Your task to perform on an android device: toggle notification dots Image 0: 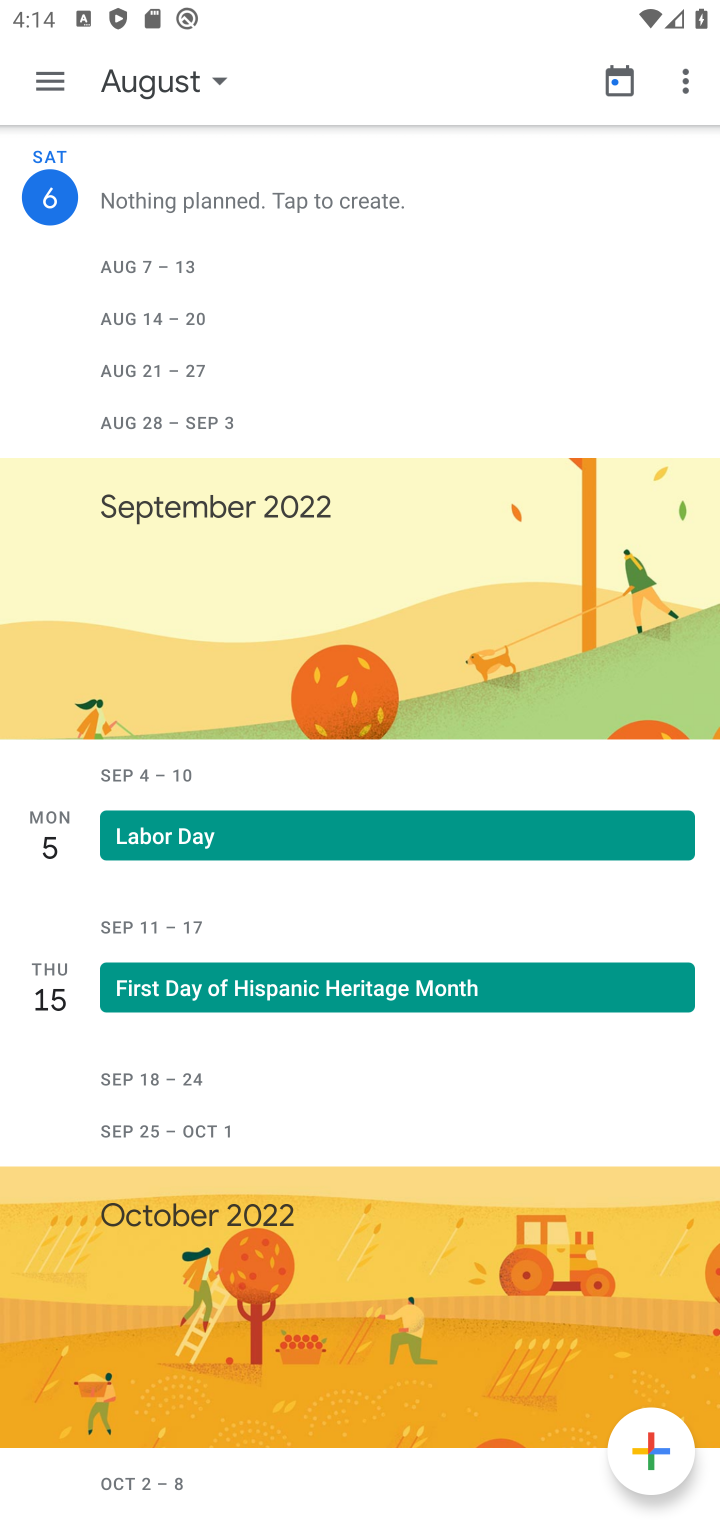
Step 0: press home button
Your task to perform on an android device: toggle notification dots Image 1: 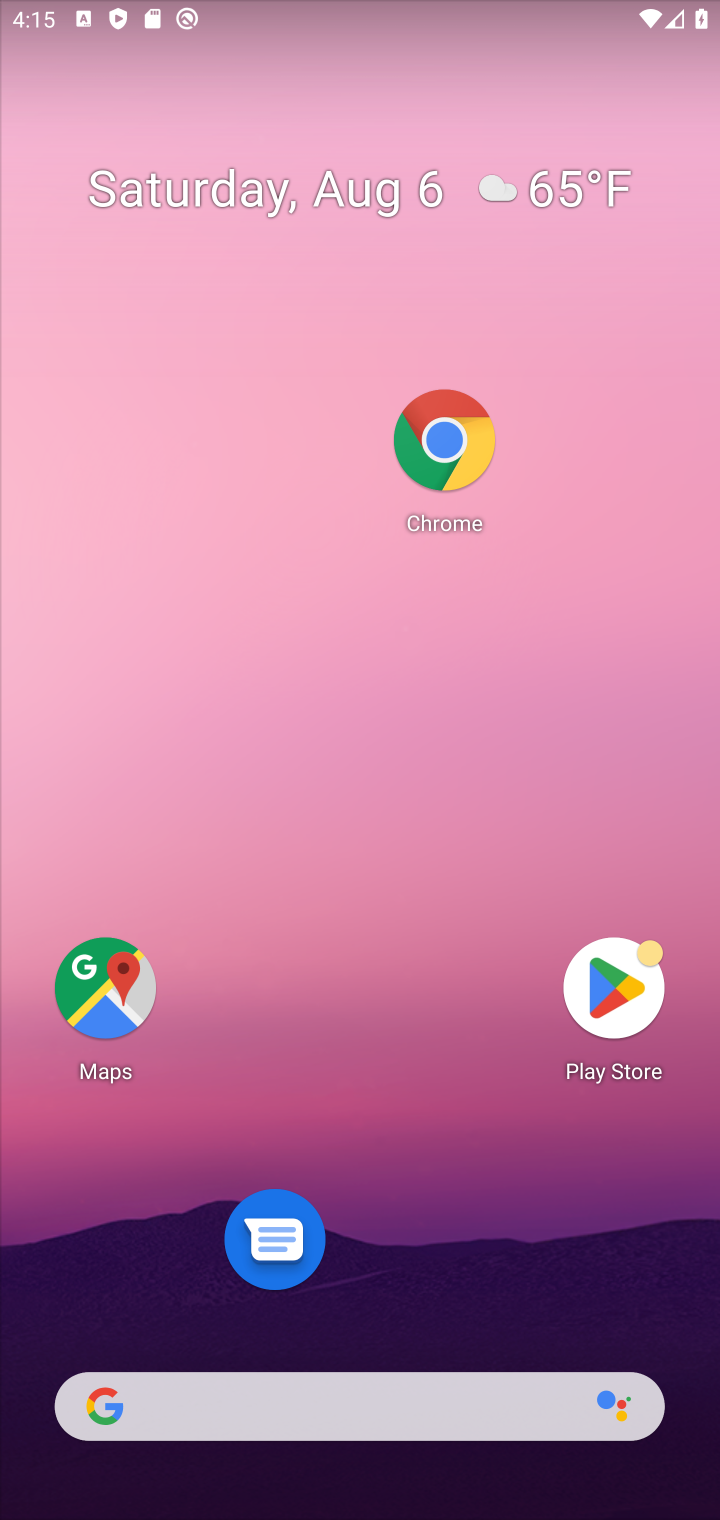
Step 1: drag from (515, 1392) to (527, 115)
Your task to perform on an android device: toggle notification dots Image 2: 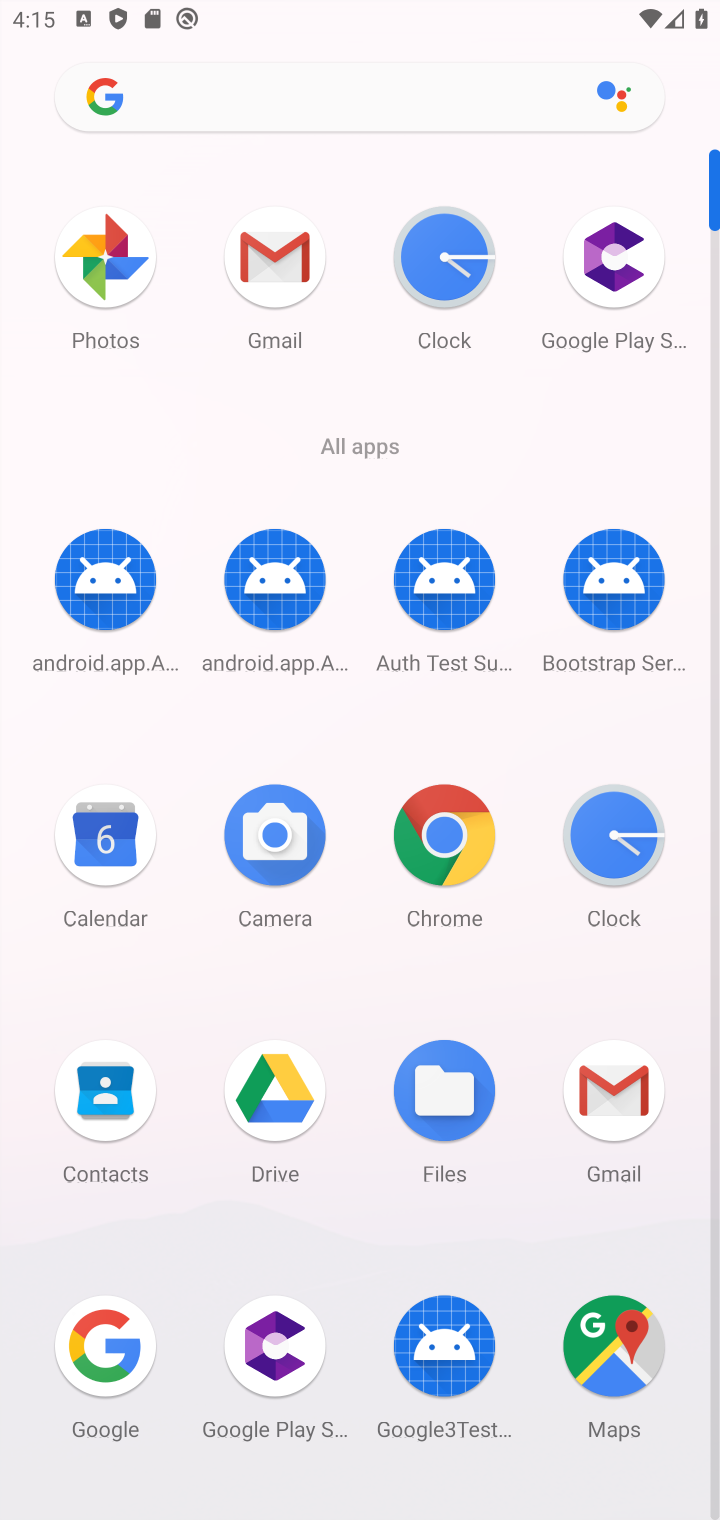
Step 2: drag from (519, 1308) to (538, 343)
Your task to perform on an android device: toggle notification dots Image 3: 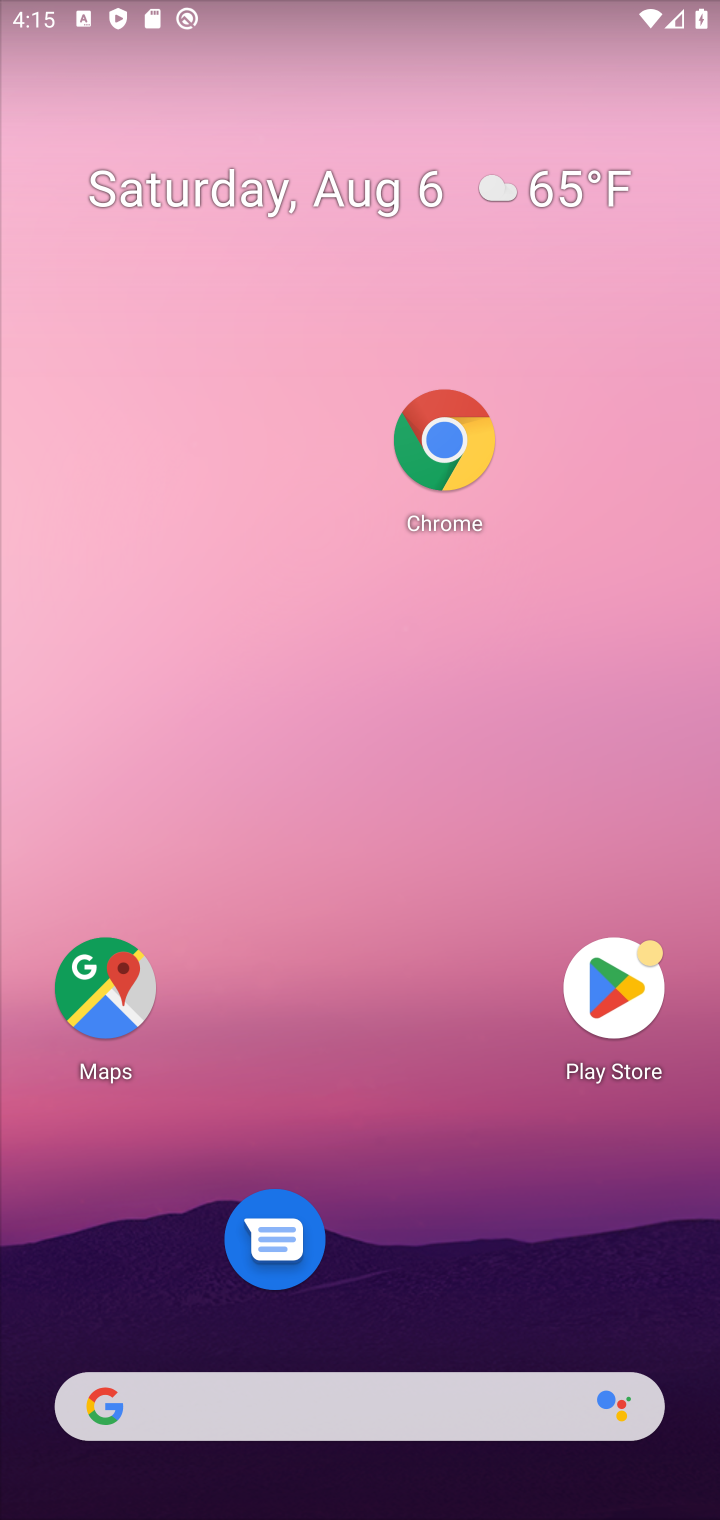
Step 3: drag from (529, 1249) to (667, 44)
Your task to perform on an android device: toggle notification dots Image 4: 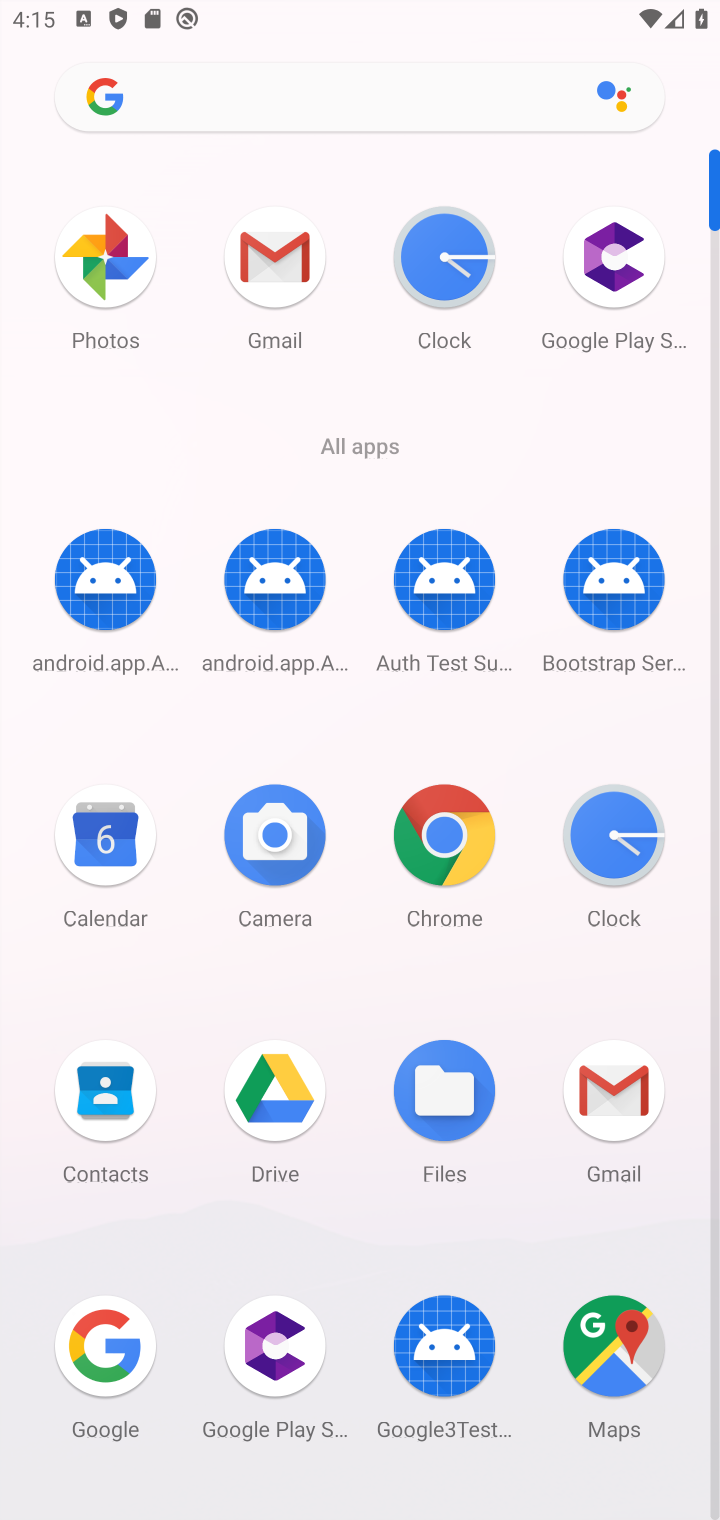
Step 4: drag from (530, 946) to (542, 327)
Your task to perform on an android device: toggle notification dots Image 5: 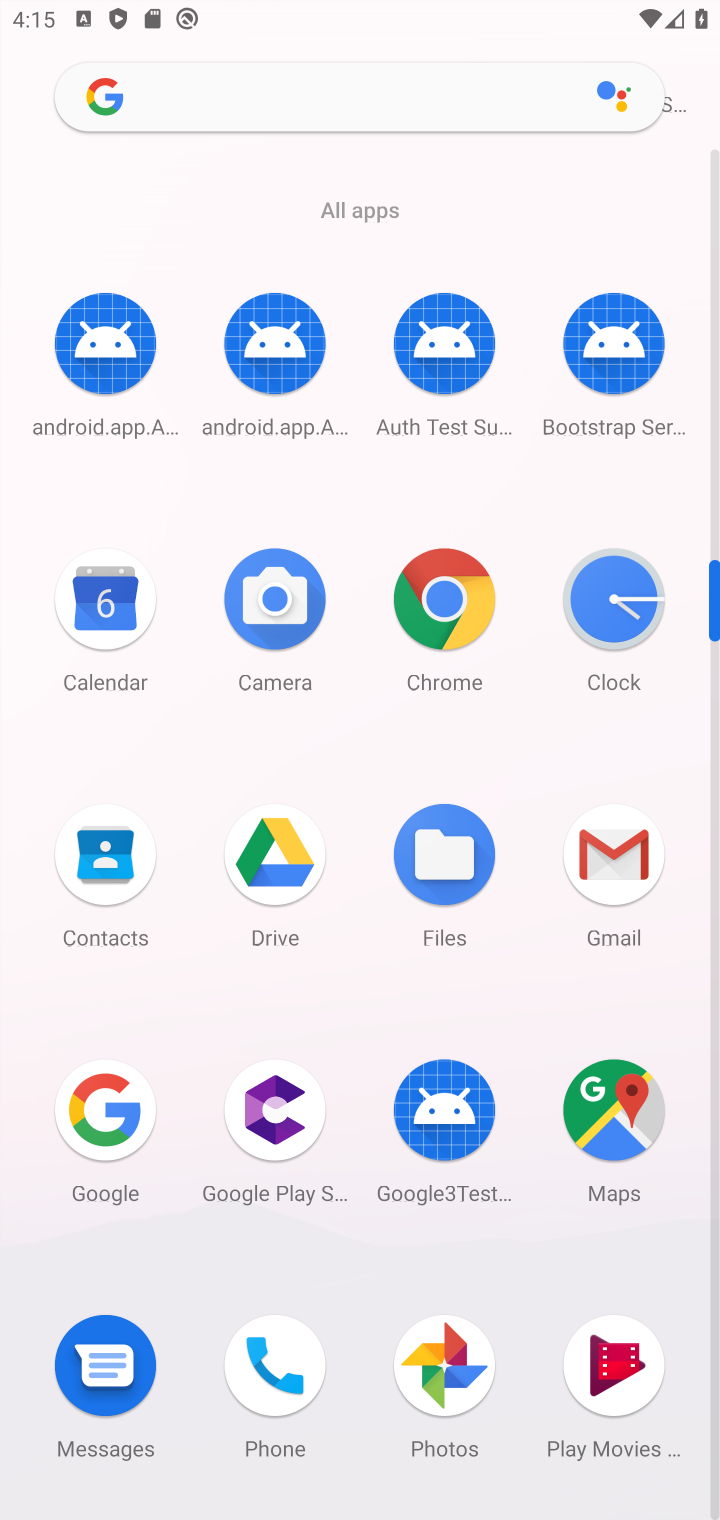
Step 5: drag from (523, 1241) to (493, 575)
Your task to perform on an android device: toggle notification dots Image 6: 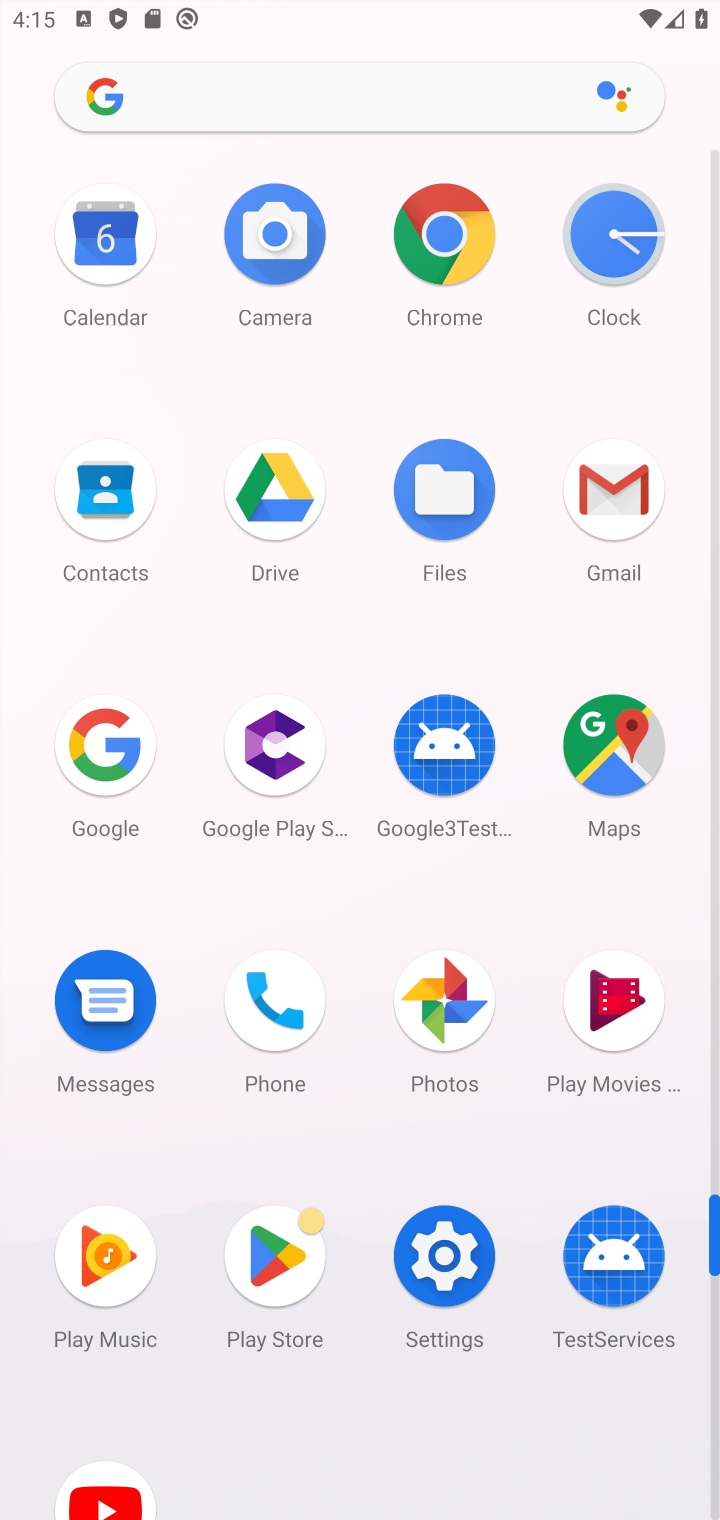
Step 6: click (452, 1254)
Your task to perform on an android device: toggle notification dots Image 7: 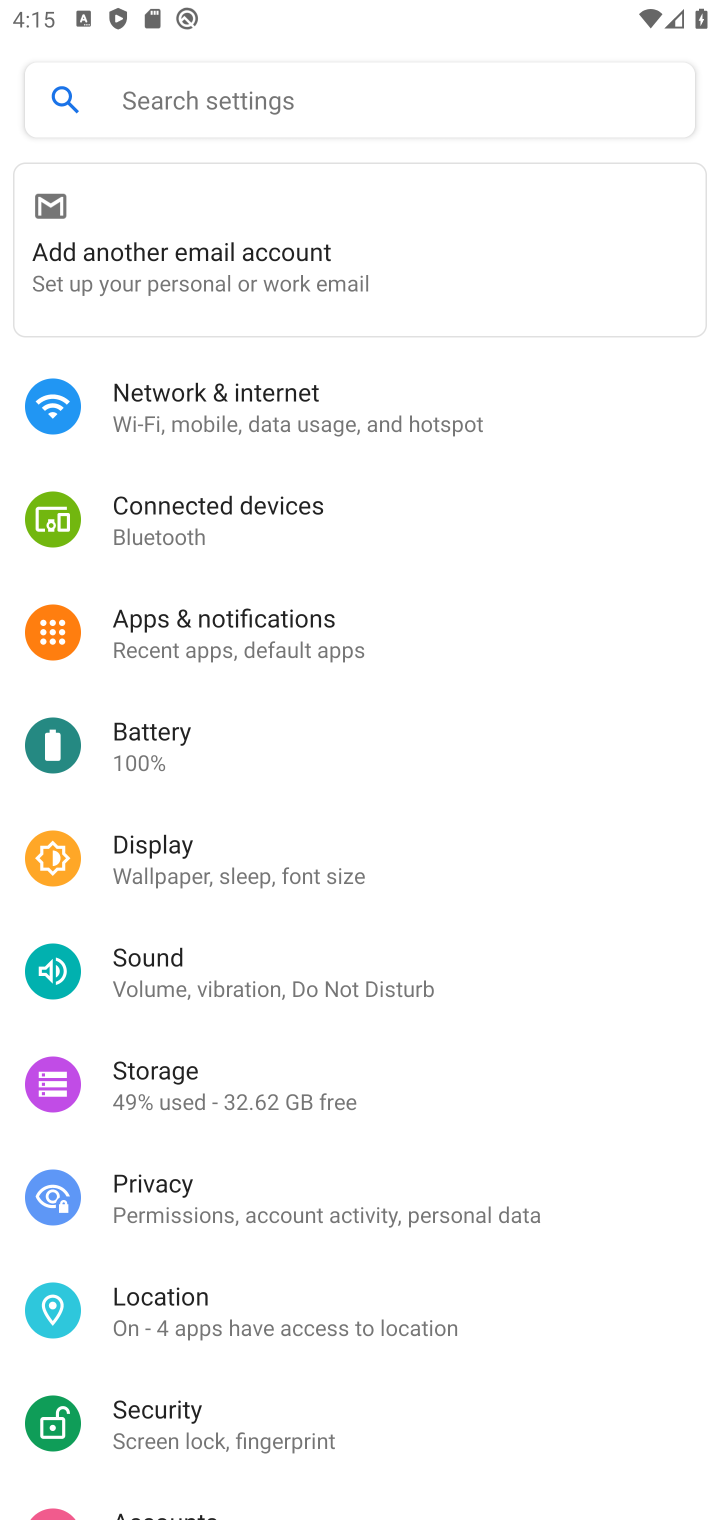
Step 7: click (287, 621)
Your task to perform on an android device: toggle notification dots Image 8: 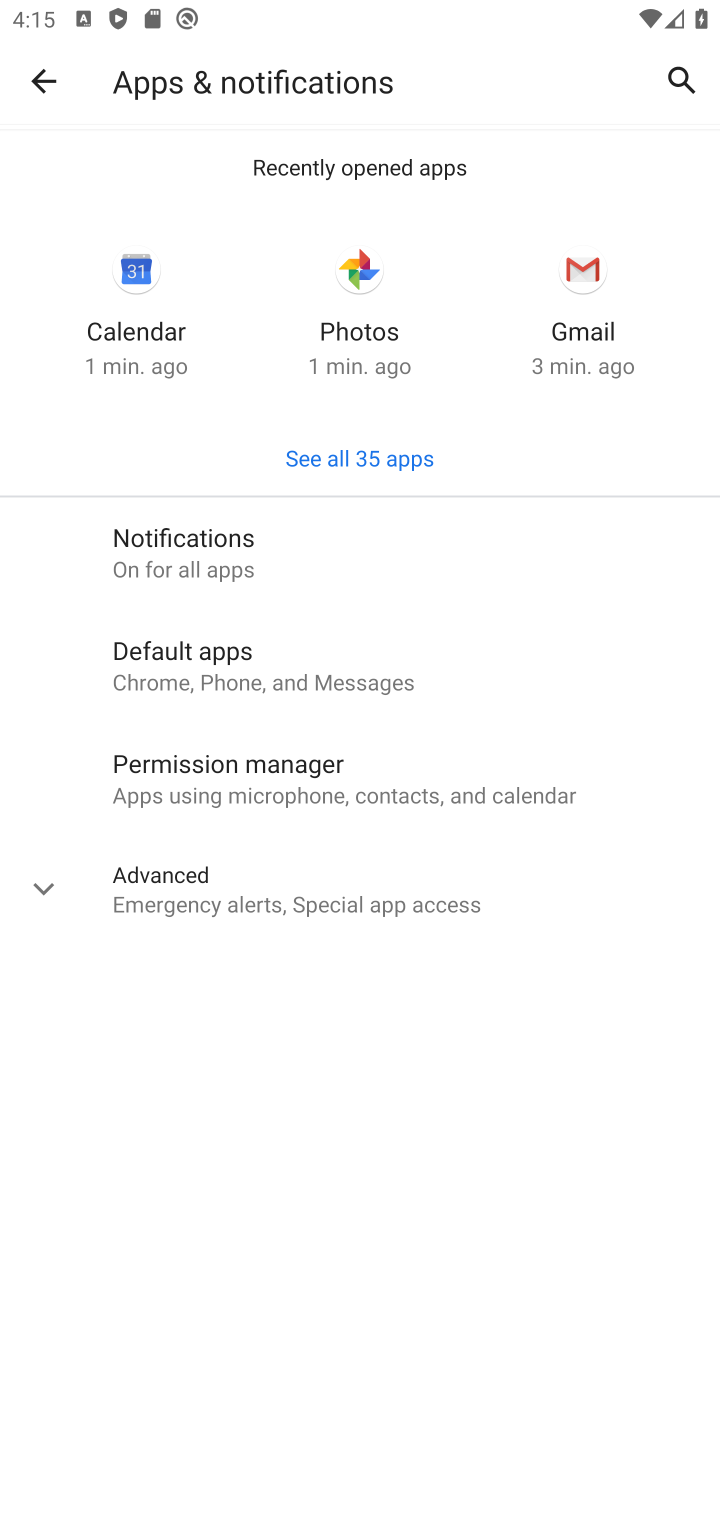
Step 8: click (239, 560)
Your task to perform on an android device: toggle notification dots Image 9: 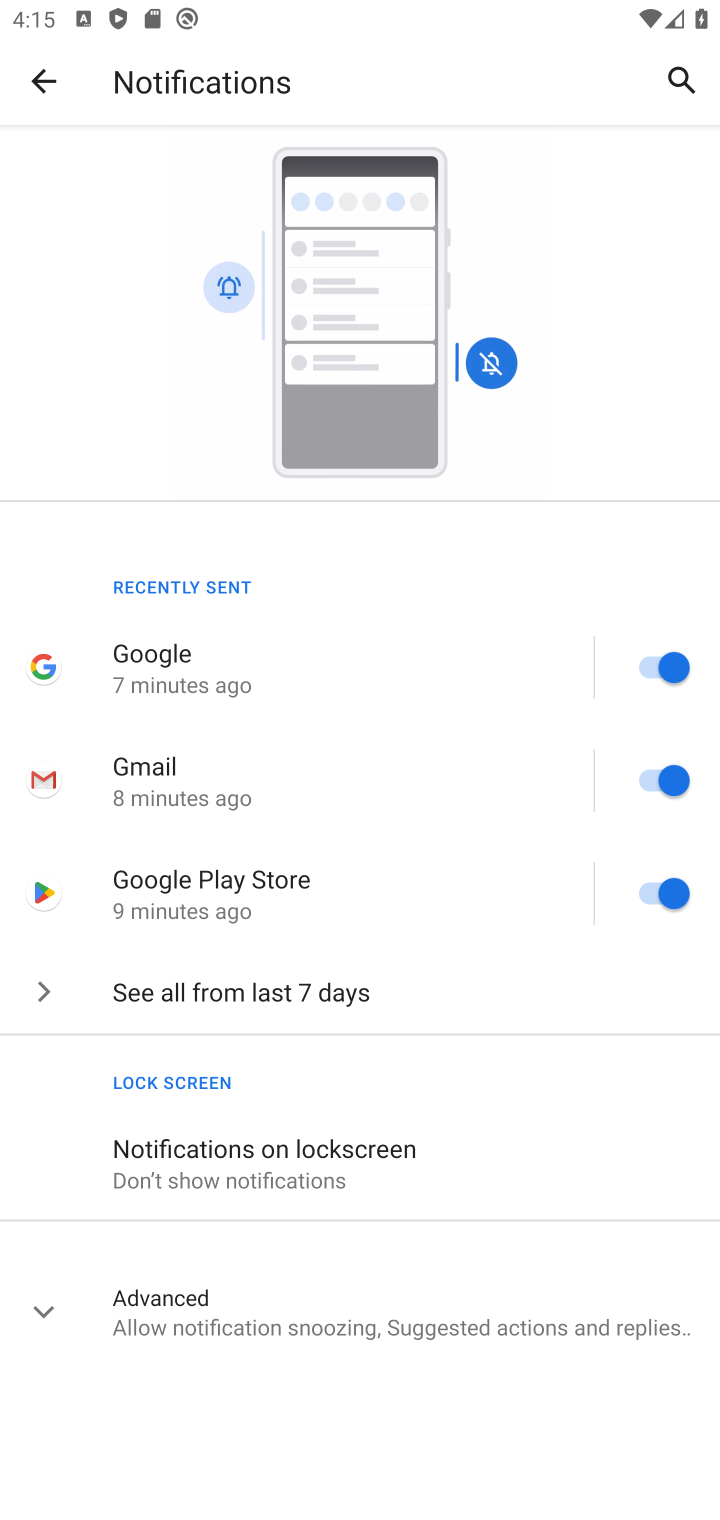
Step 9: click (196, 1294)
Your task to perform on an android device: toggle notification dots Image 10: 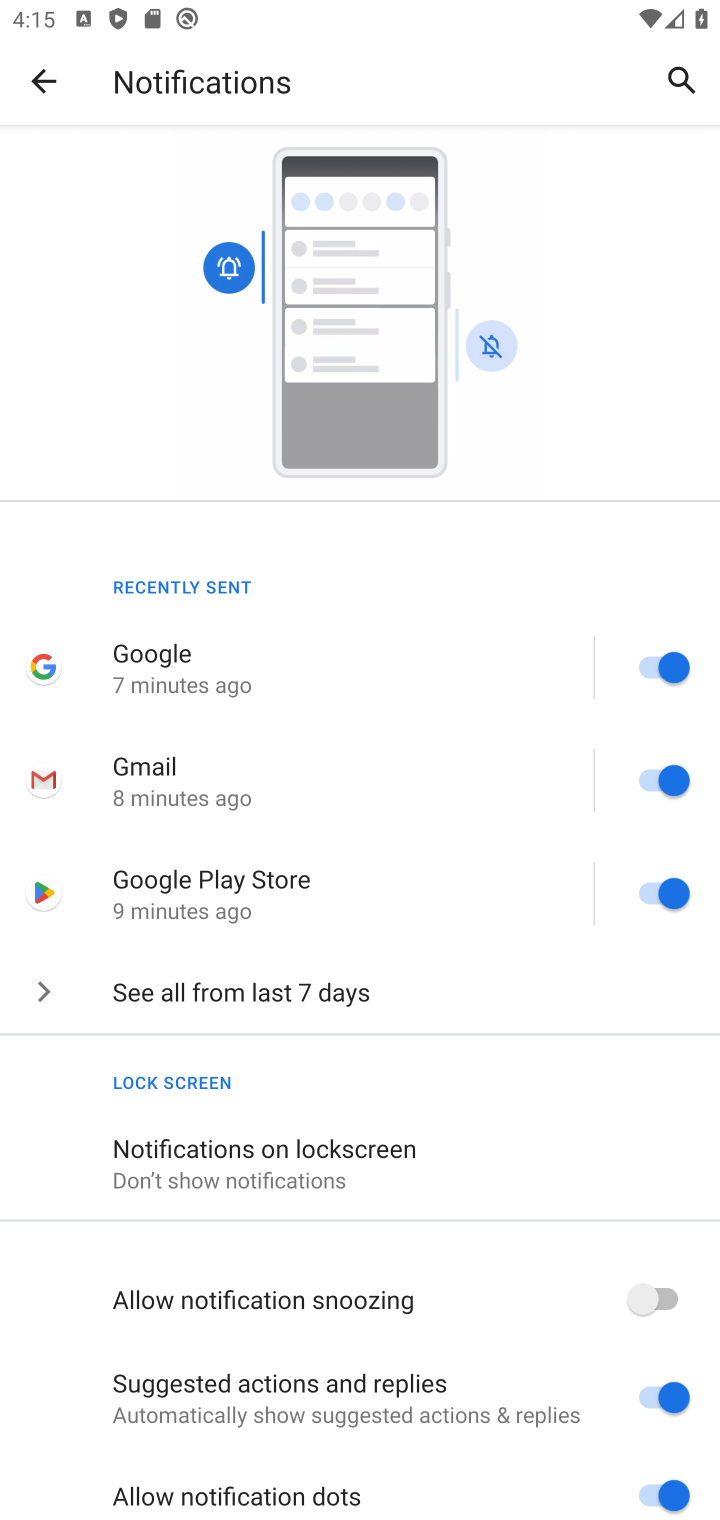
Step 10: drag from (470, 1247) to (494, 672)
Your task to perform on an android device: toggle notification dots Image 11: 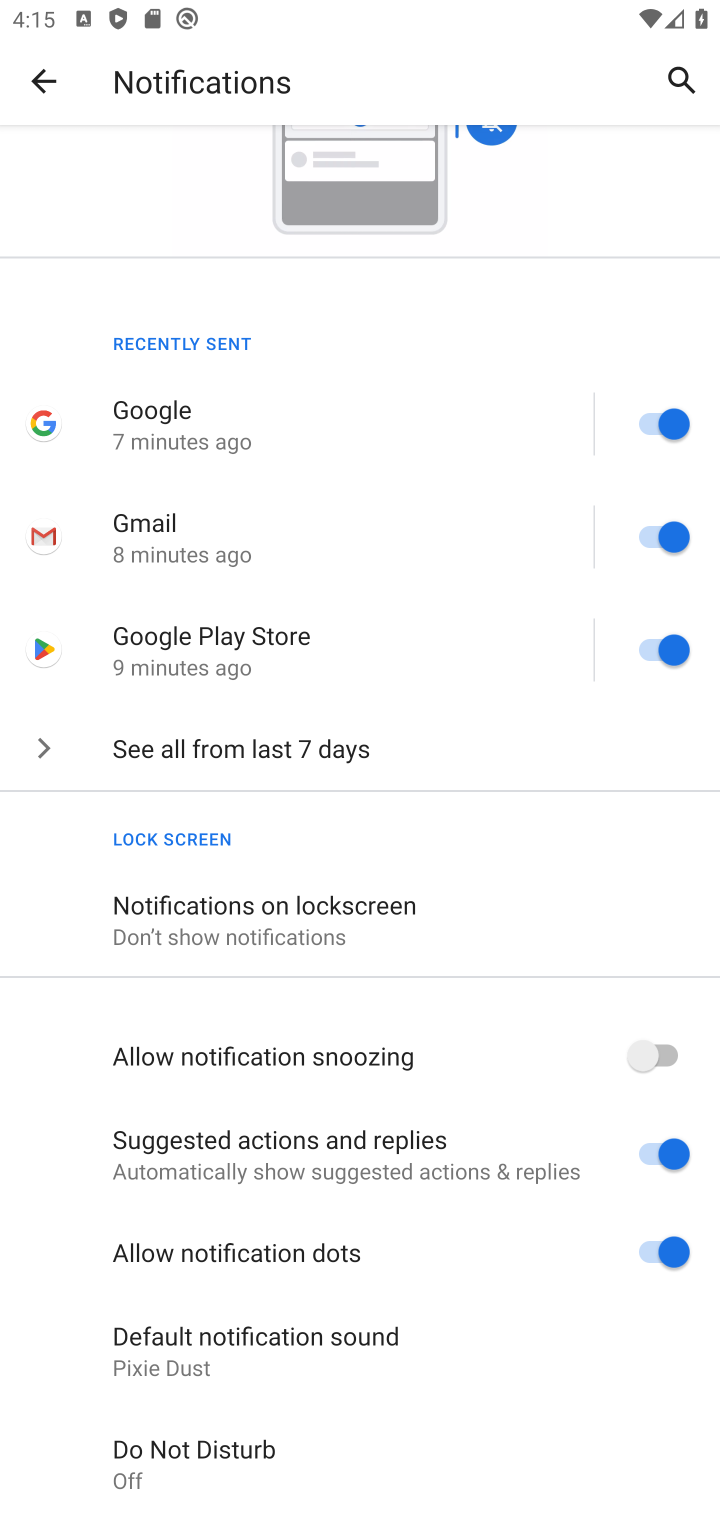
Step 11: click (660, 1250)
Your task to perform on an android device: toggle notification dots Image 12: 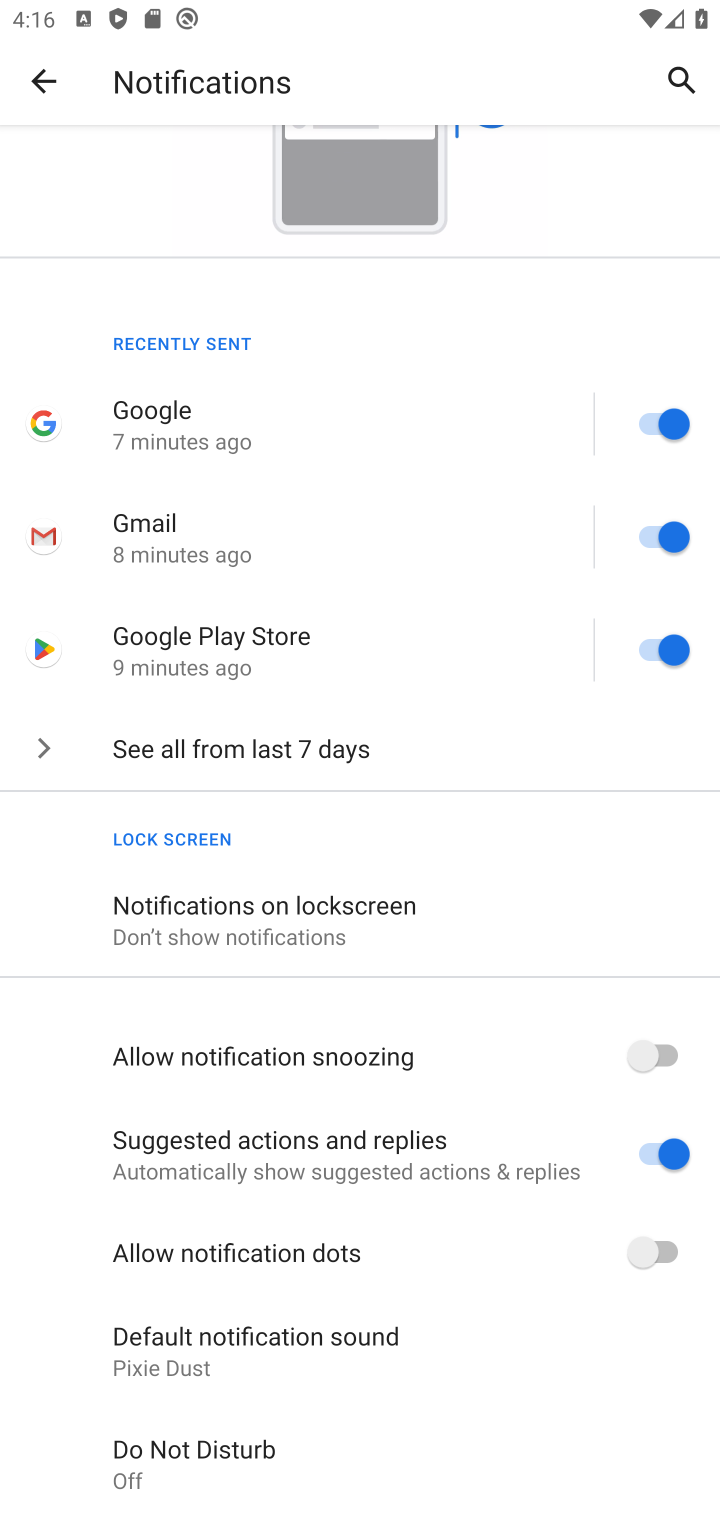
Step 12: task complete